Your task to perform on an android device: Open display settings Image 0: 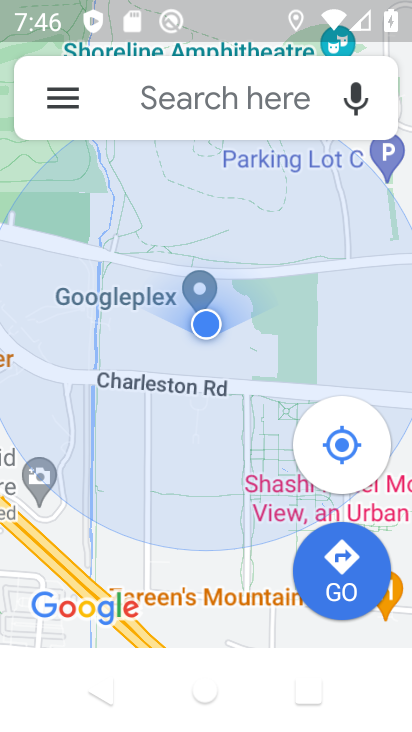
Step 0: drag from (235, 601) to (238, 246)
Your task to perform on an android device: Open display settings Image 1: 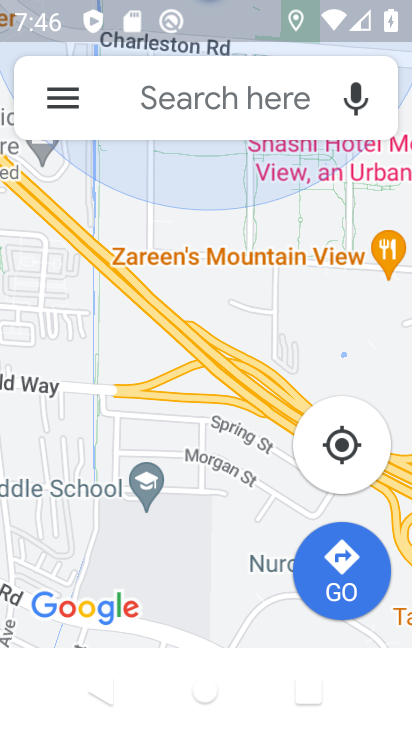
Step 1: drag from (203, 588) to (215, 263)
Your task to perform on an android device: Open display settings Image 2: 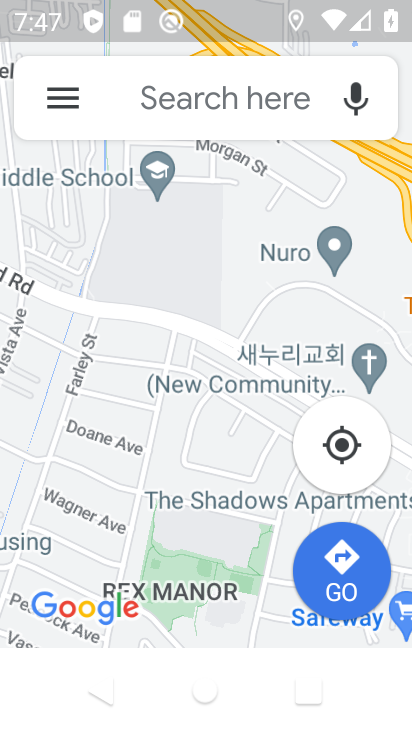
Step 2: drag from (123, 611) to (230, 445)
Your task to perform on an android device: Open display settings Image 3: 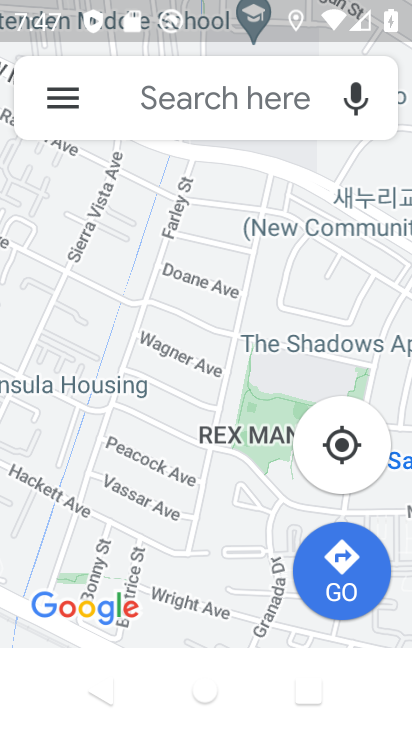
Step 3: press home button
Your task to perform on an android device: Open display settings Image 4: 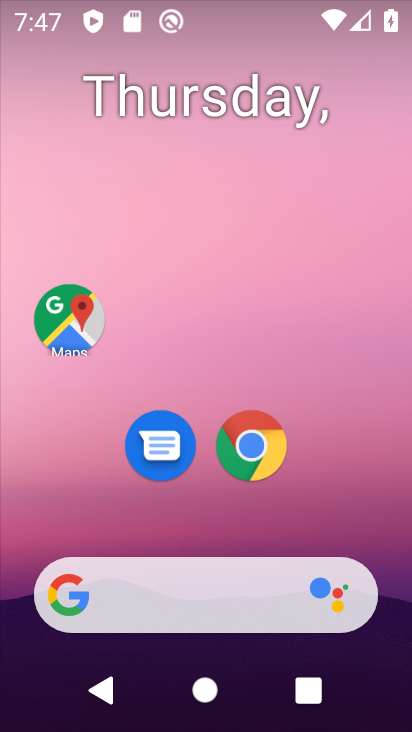
Step 4: drag from (220, 540) to (268, 99)
Your task to perform on an android device: Open display settings Image 5: 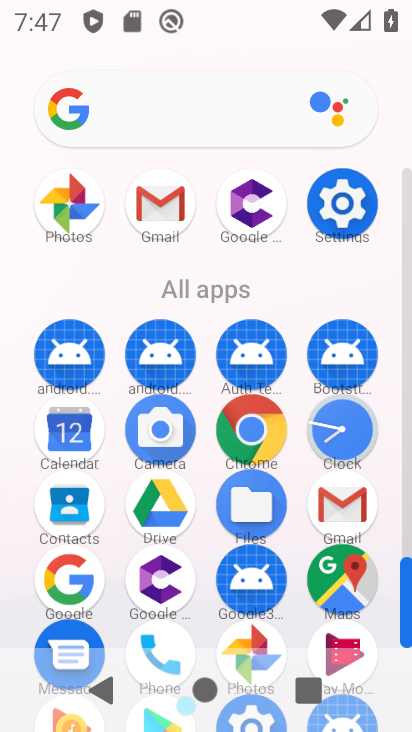
Step 5: click (344, 205)
Your task to perform on an android device: Open display settings Image 6: 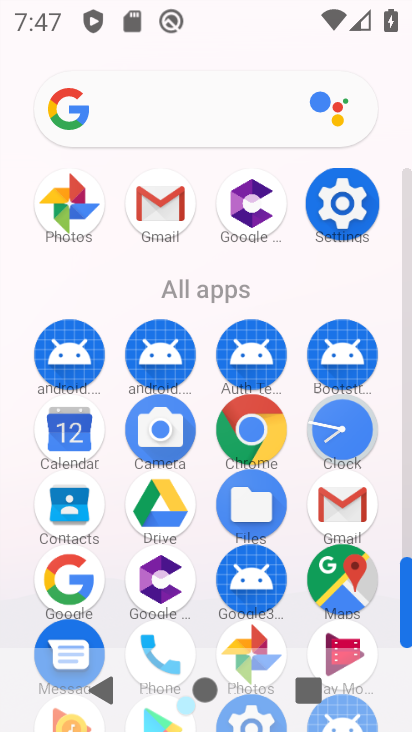
Step 6: click (344, 205)
Your task to perform on an android device: Open display settings Image 7: 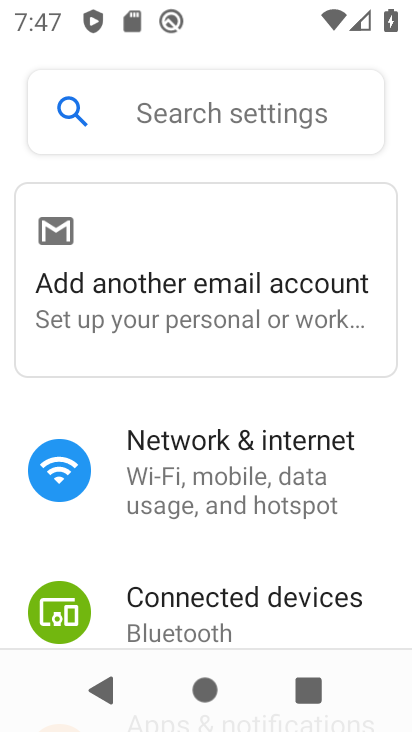
Step 7: drag from (211, 566) to (297, 98)
Your task to perform on an android device: Open display settings Image 8: 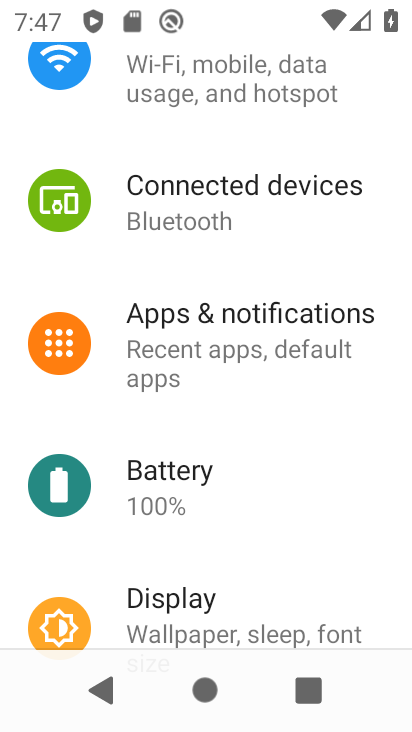
Step 8: drag from (213, 552) to (236, 337)
Your task to perform on an android device: Open display settings Image 9: 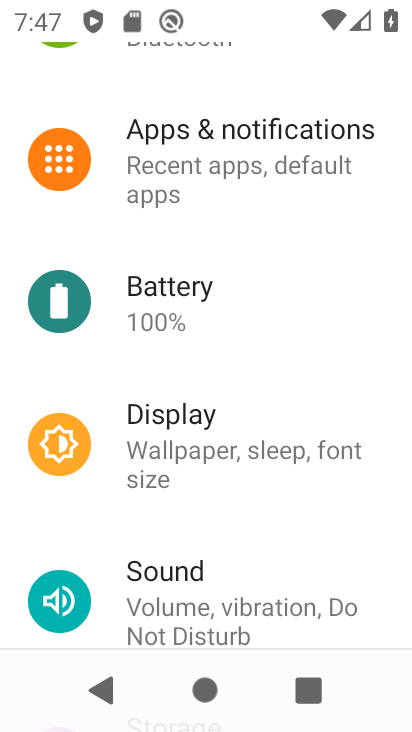
Step 9: click (142, 387)
Your task to perform on an android device: Open display settings Image 10: 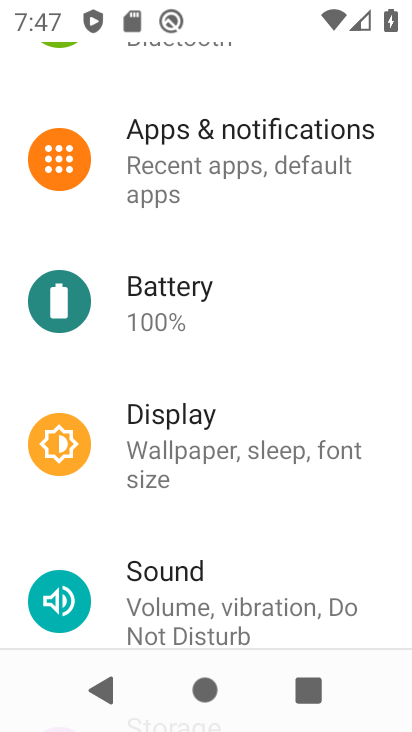
Step 10: click (168, 417)
Your task to perform on an android device: Open display settings Image 11: 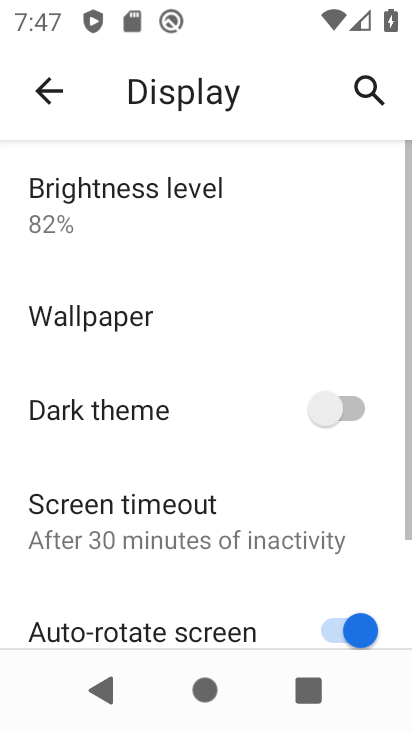
Step 11: task complete